Your task to perform on an android device: create a new album in the google photos Image 0: 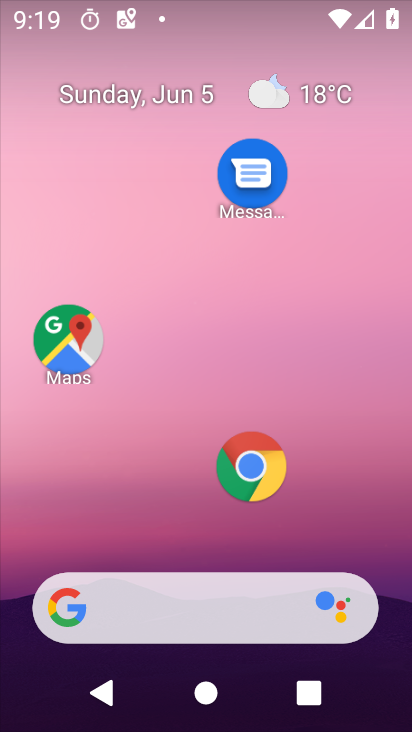
Step 0: drag from (218, 544) to (233, 55)
Your task to perform on an android device: create a new album in the google photos Image 1: 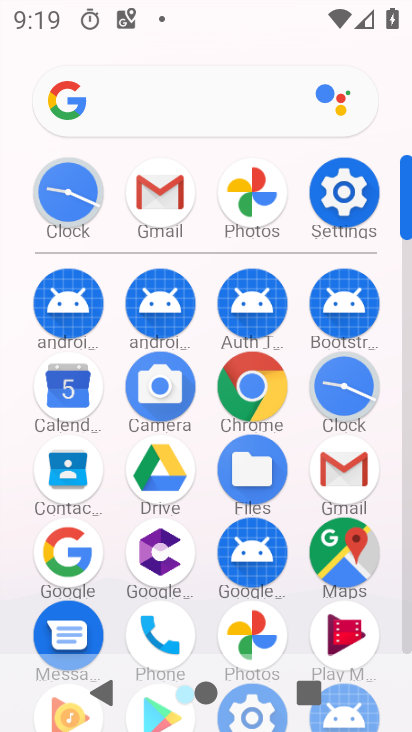
Step 1: click (246, 636)
Your task to perform on an android device: create a new album in the google photos Image 2: 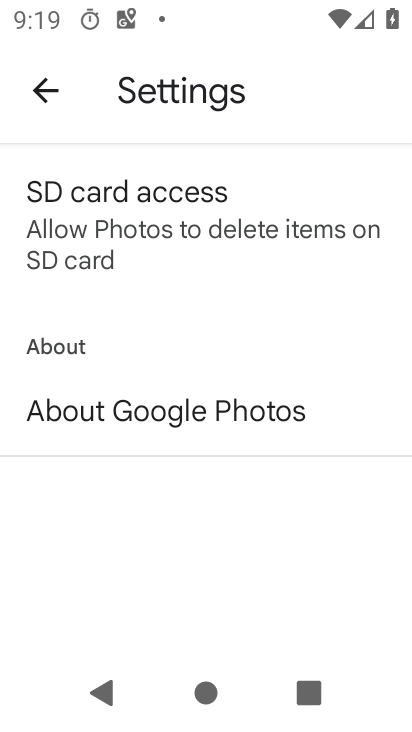
Step 2: drag from (194, 570) to (239, 240)
Your task to perform on an android device: create a new album in the google photos Image 3: 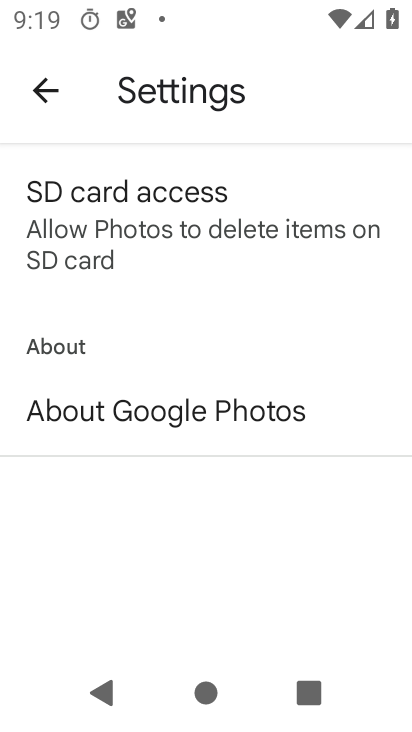
Step 3: press home button
Your task to perform on an android device: create a new album in the google photos Image 4: 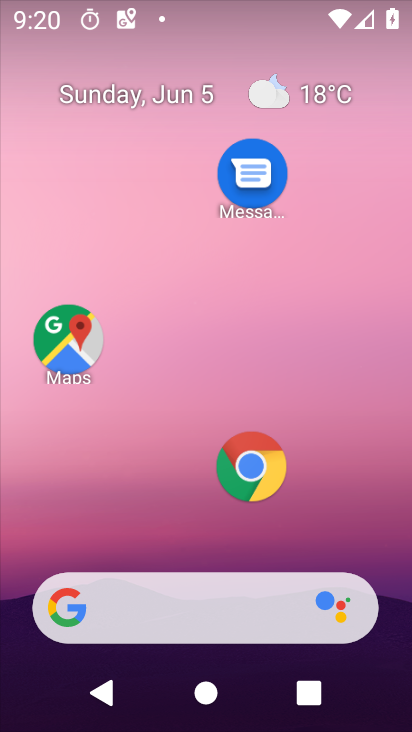
Step 4: drag from (216, 525) to (267, 101)
Your task to perform on an android device: create a new album in the google photos Image 5: 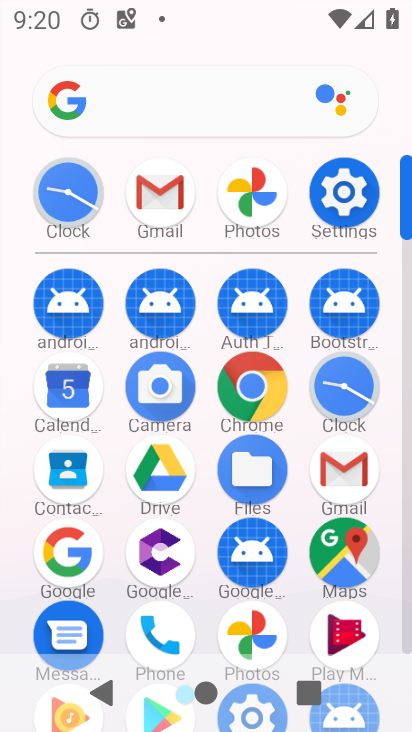
Step 5: click (257, 614)
Your task to perform on an android device: create a new album in the google photos Image 6: 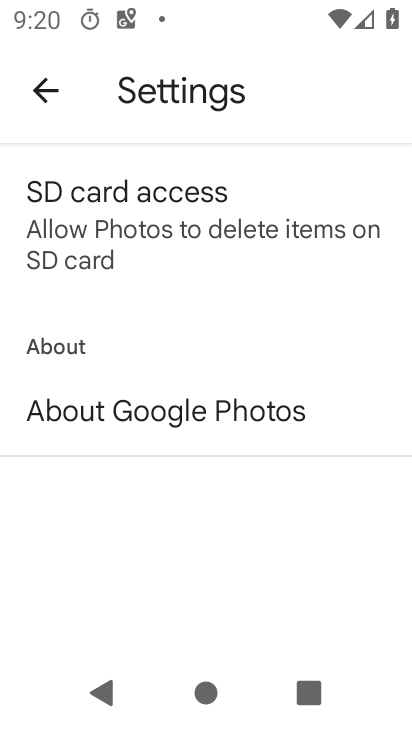
Step 6: click (53, 107)
Your task to perform on an android device: create a new album in the google photos Image 7: 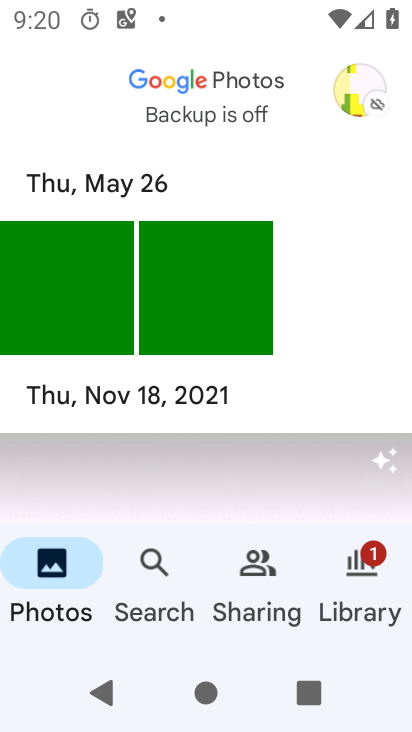
Step 7: drag from (219, 454) to (261, 79)
Your task to perform on an android device: create a new album in the google photos Image 8: 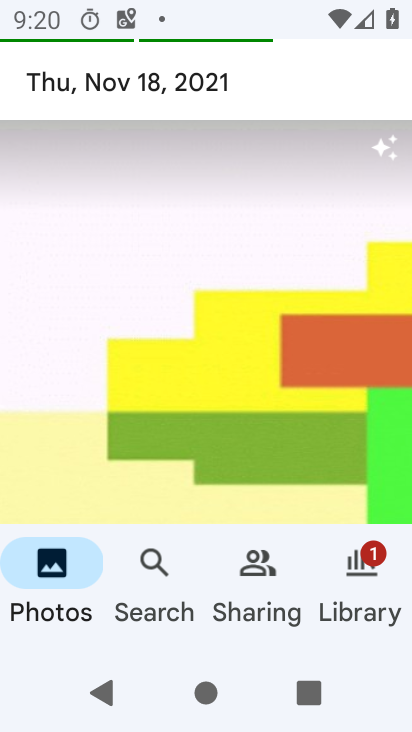
Step 8: click (364, 583)
Your task to perform on an android device: create a new album in the google photos Image 9: 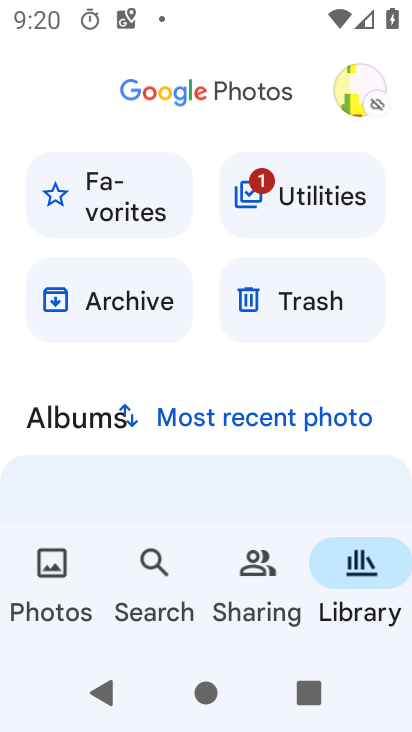
Step 9: drag from (93, 409) to (218, 0)
Your task to perform on an android device: create a new album in the google photos Image 10: 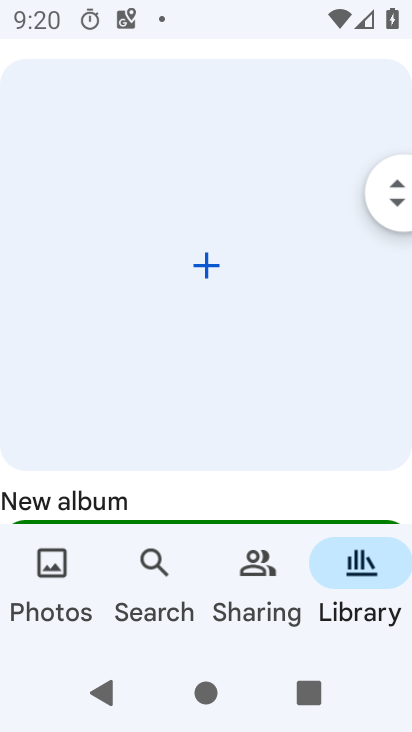
Step 10: click (219, 263)
Your task to perform on an android device: create a new album in the google photos Image 11: 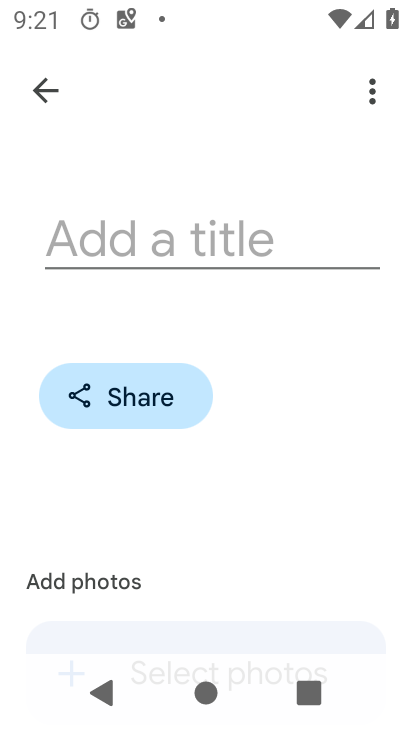
Step 11: click (196, 223)
Your task to perform on an android device: create a new album in the google photos Image 12: 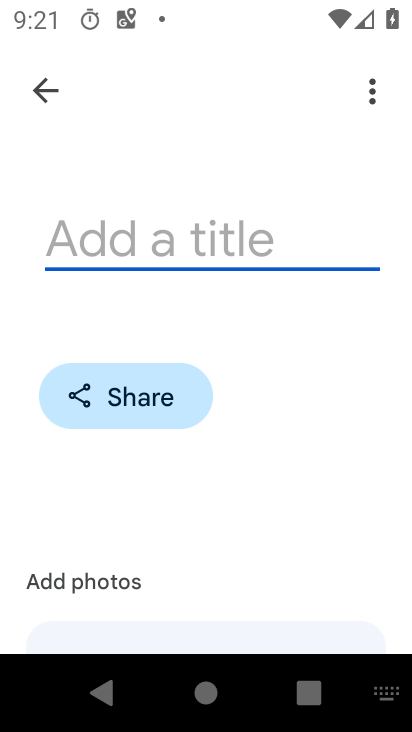
Step 12: drag from (248, 358) to (249, 158)
Your task to perform on an android device: create a new album in the google photos Image 13: 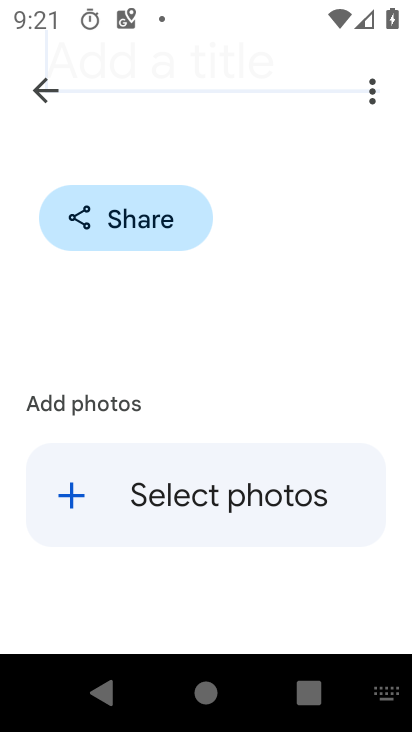
Step 13: drag from (240, 252) to (286, 445)
Your task to perform on an android device: create a new album in the google photos Image 14: 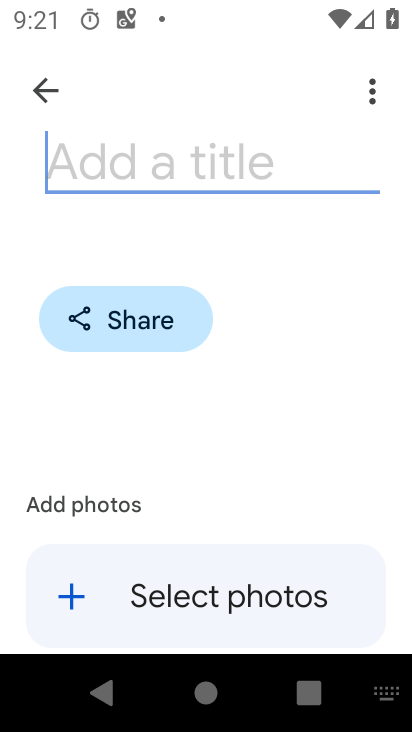
Step 14: click (93, 179)
Your task to perform on an android device: create a new album in the google photos Image 15: 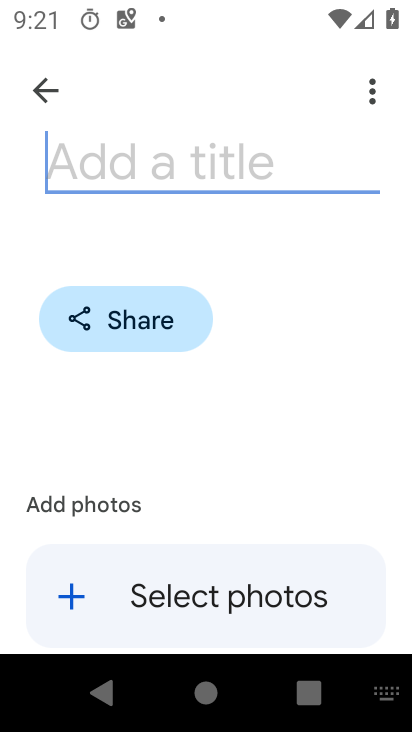
Step 15: type "naksa"
Your task to perform on an android device: create a new album in the google photos Image 16: 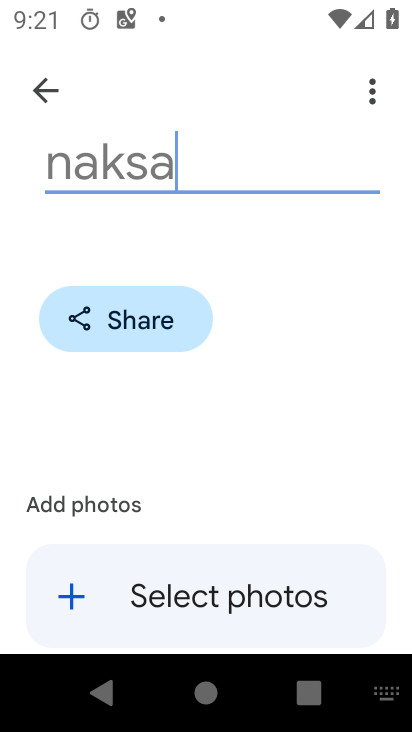
Step 16: drag from (212, 465) to (284, 134)
Your task to perform on an android device: create a new album in the google photos Image 17: 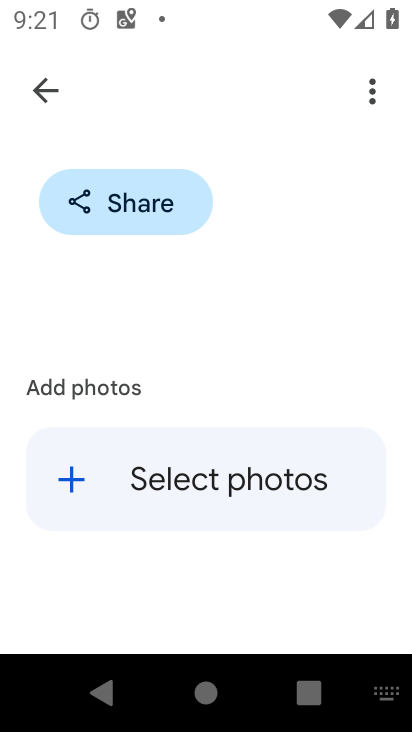
Step 17: click (70, 491)
Your task to perform on an android device: create a new album in the google photos Image 18: 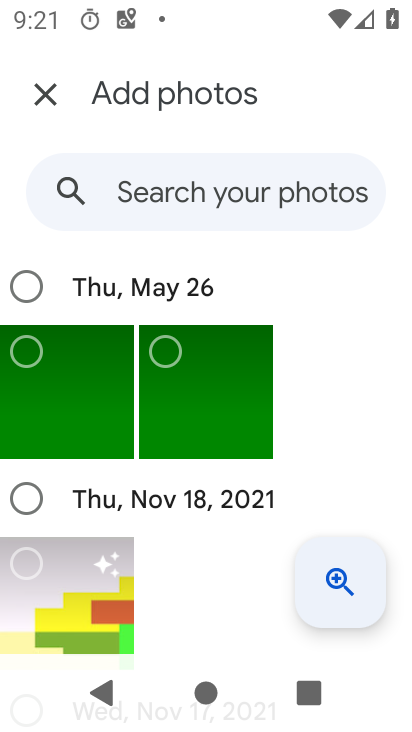
Step 18: click (44, 382)
Your task to perform on an android device: create a new album in the google photos Image 19: 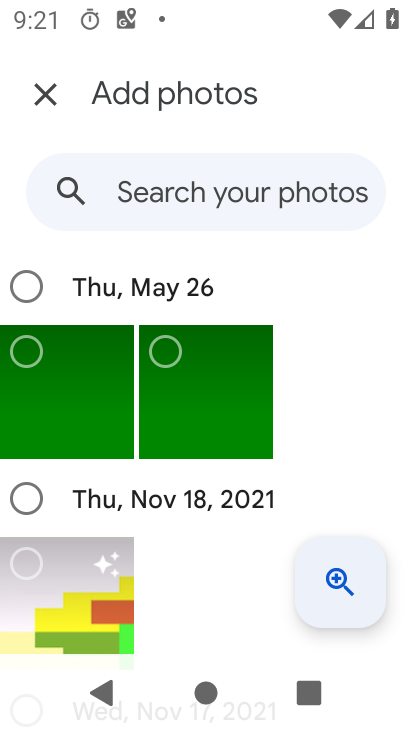
Step 19: click (207, 386)
Your task to perform on an android device: create a new album in the google photos Image 20: 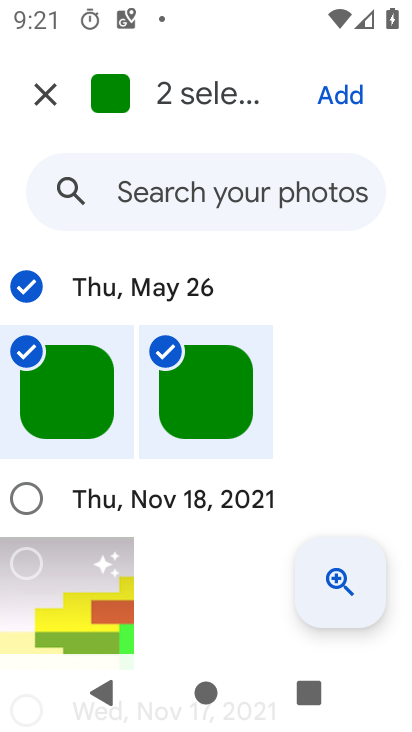
Step 20: click (350, 94)
Your task to perform on an android device: create a new album in the google photos Image 21: 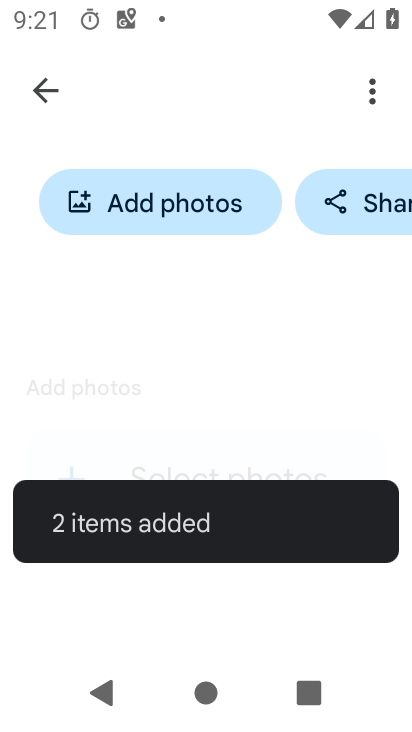
Step 21: task complete